Your task to perform on an android device: open wifi settings Image 0: 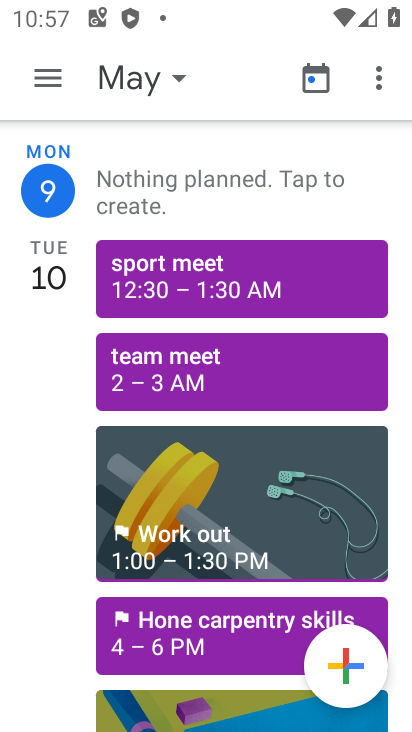
Step 0: press home button
Your task to perform on an android device: open wifi settings Image 1: 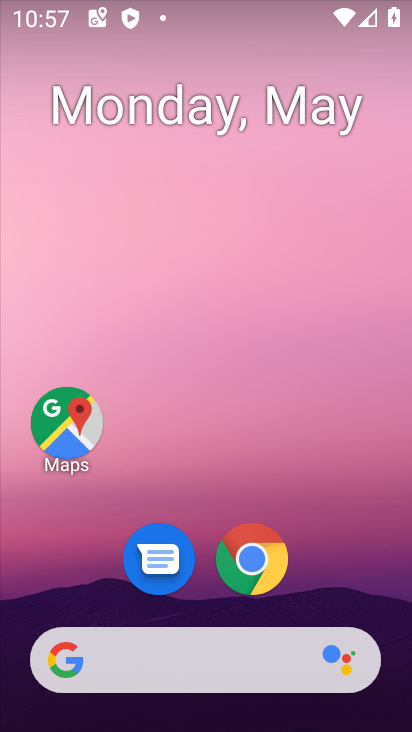
Step 1: drag from (342, 16) to (195, 731)
Your task to perform on an android device: open wifi settings Image 2: 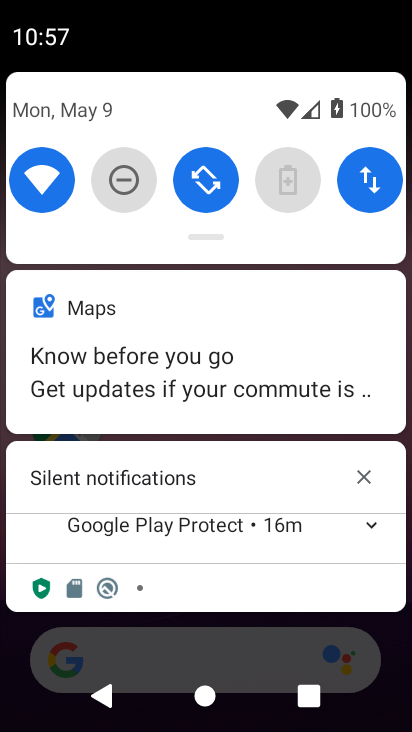
Step 2: click (51, 184)
Your task to perform on an android device: open wifi settings Image 3: 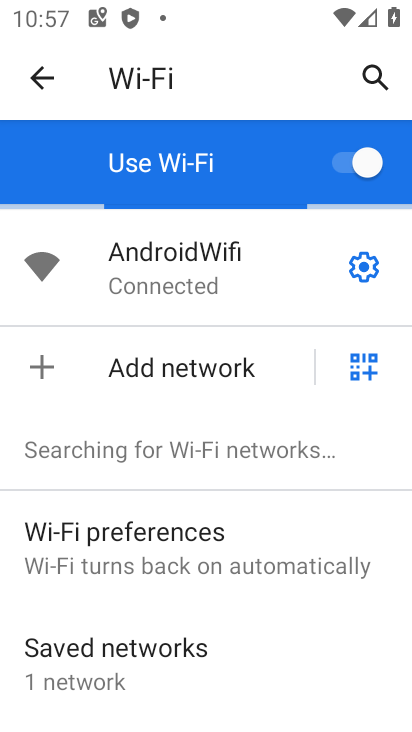
Step 3: task complete